Your task to perform on an android device: Show me popular videos on Youtube Image 0: 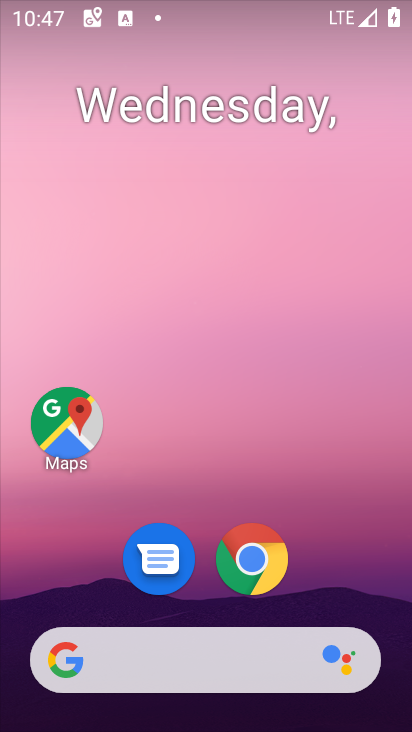
Step 0: drag from (265, 679) to (252, 341)
Your task to perform on an android device: Show me popular videos on Youtube Image 1: 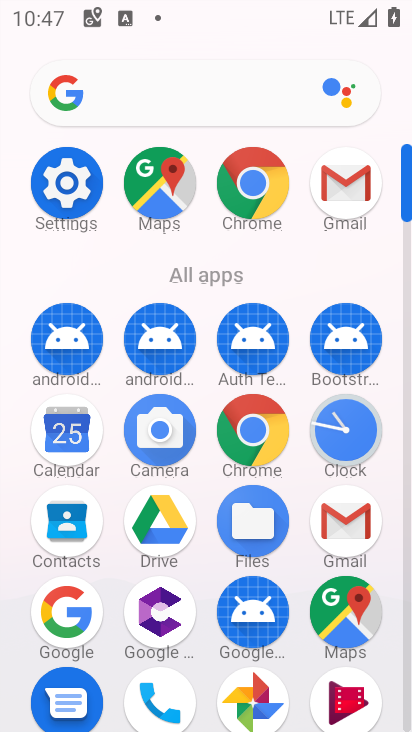
Step 1: drag from (256, 535) to (255, 226)
Your task to perform on an android device: Show me popular videos on Youtube Image 2: 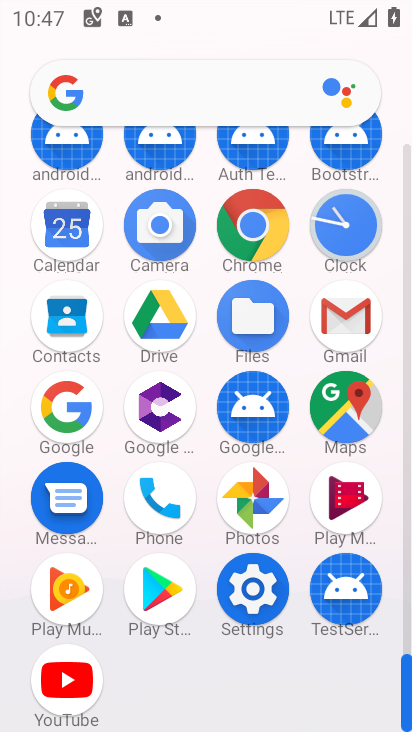
Step 2: drag from (258, 467) to (264, 274)
Your task to perform on an android device: Show me popular videos on Youtube Image 3: 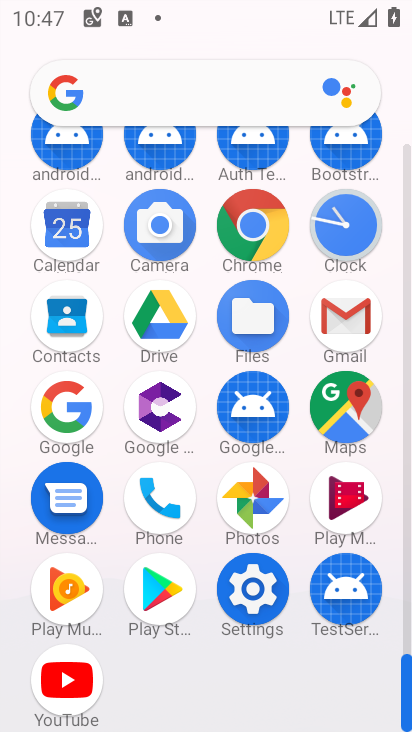
Step 3: click (67, 691)
Your task to perform on an android device: Show me popular videos on Youtube Image 4: 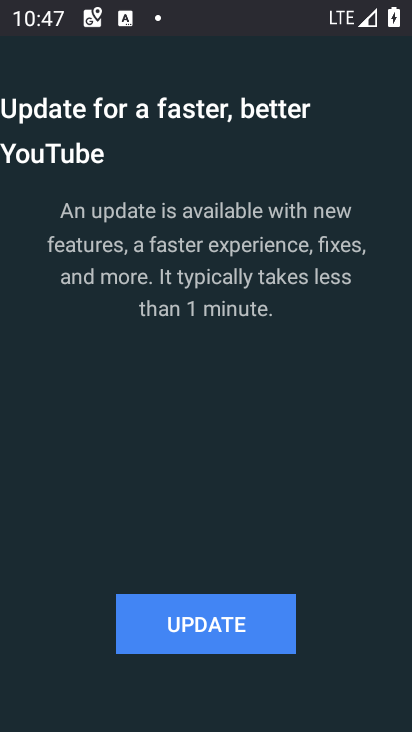
Step 4: task complete